Your task to perform on an android device: What's on my calendar tomorrow? Image 0: 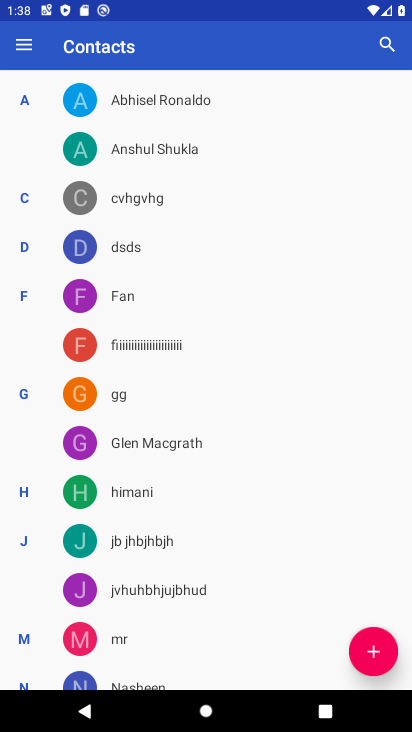
Step 0: press home button
Your task to perform on an android device: What's on my calendar tomorrow? Image 1: 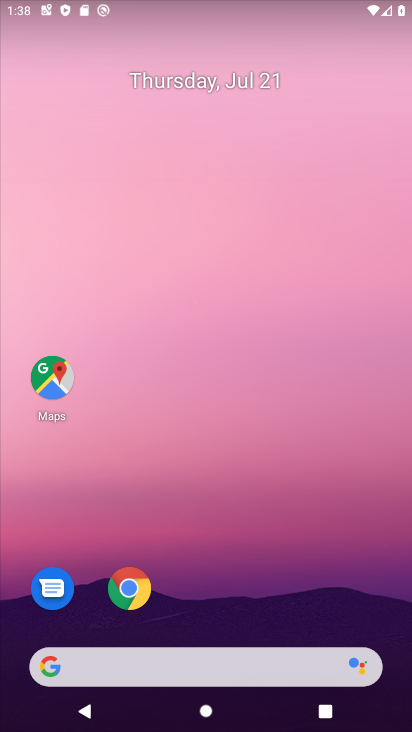
Step 1: drag from (220, 637) to (174, 51)
Your task to perform on an android device: What's on my calendar tomorrow? Image 2: 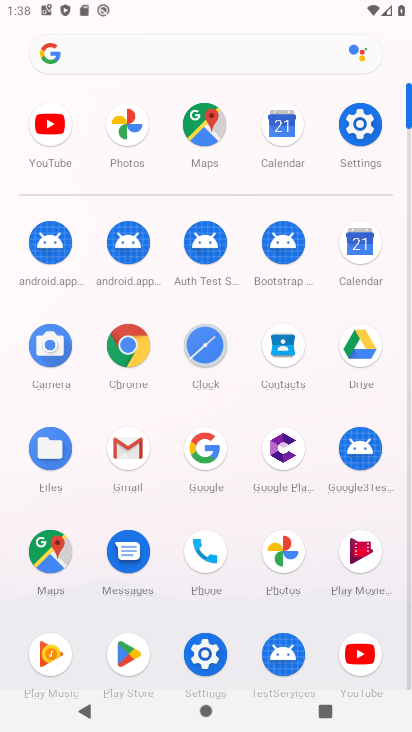
Step 2: click (367, 248)
Your task to perform on an android device: What's on my calendar tomorrow? Image 3: 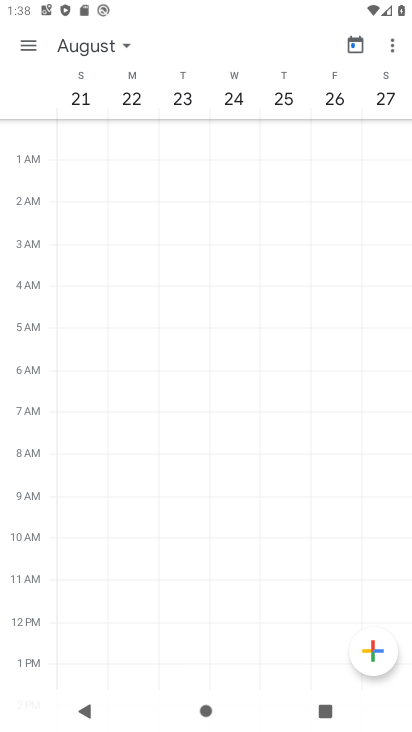
Step 3: click (341, 52)
Your task to perform on an android device: What's on my calendar tomorrow? Image 4: 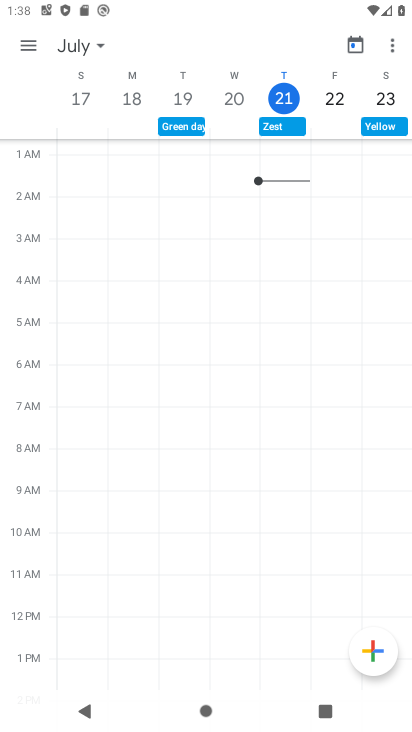
Step 4: click (326, 101)
Your task to perform on an android device: What's on my calendar tomorrow? Image 5: 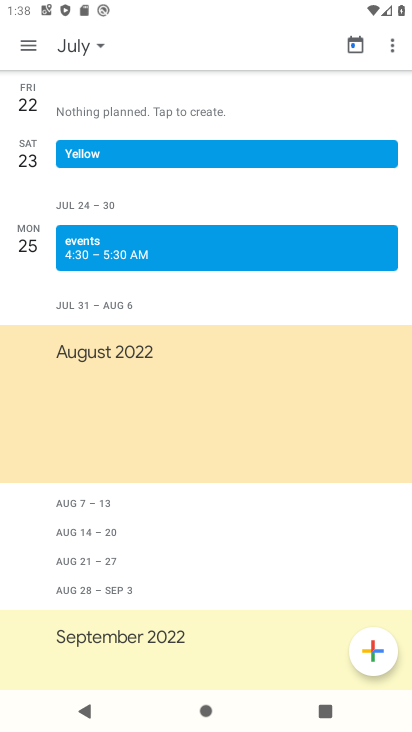
Step 5: task complete